Your task to perform on an android device: Go to ESPN.com Image 0: 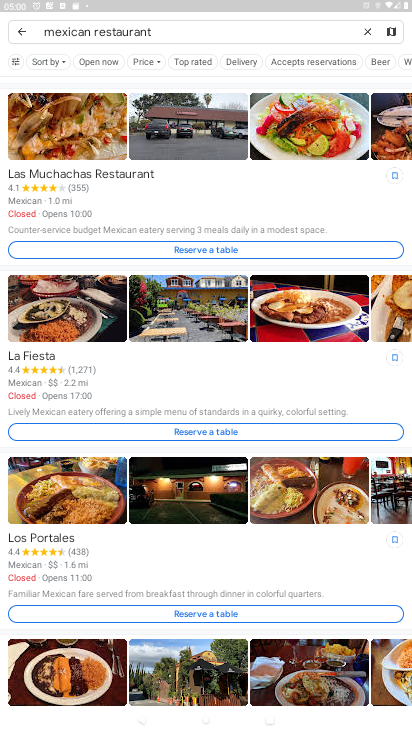
Step 0: press home button
Your task to perform on an android device: Go to ESPN.com Image 1: 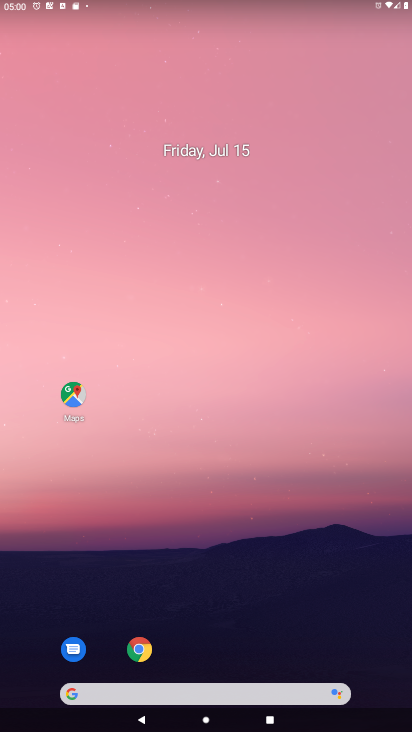
Step 1: click (136, 654)
Your task to perform on an android device: Go to ESPN.com Image 2: 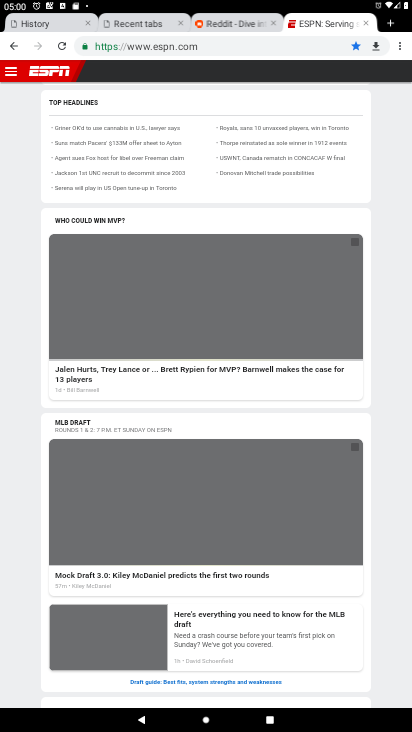
Step 2: task complete